Your task to perform on an android device: check google app version Image 0: 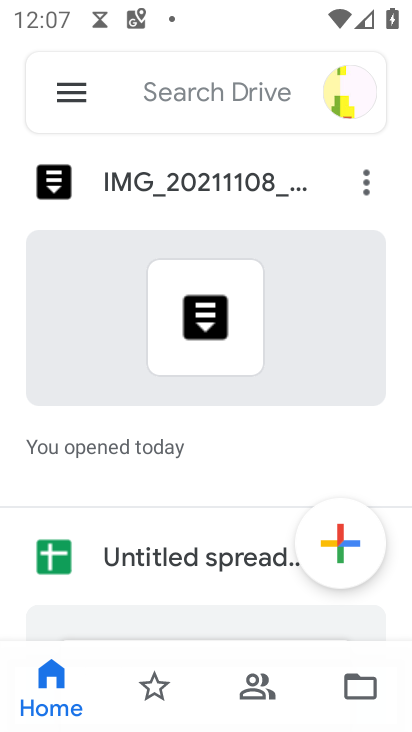
Step 0: press home button
Your task to perform on an android device: check google app version Image 1: 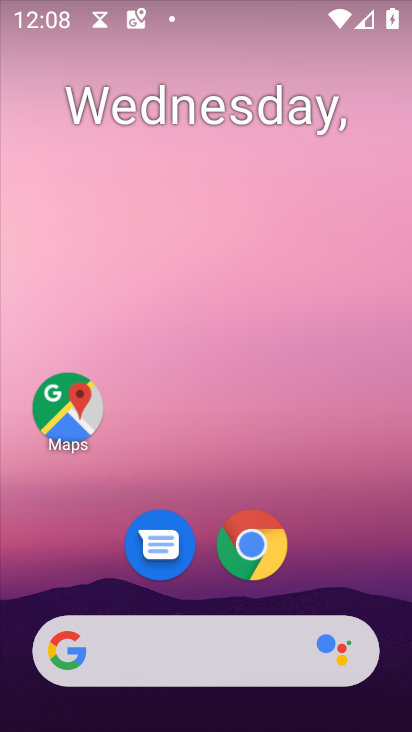
Step 1: drag from (351, 196) to (355, 72)
Your task to perform on an android device: check google app version Image 2: 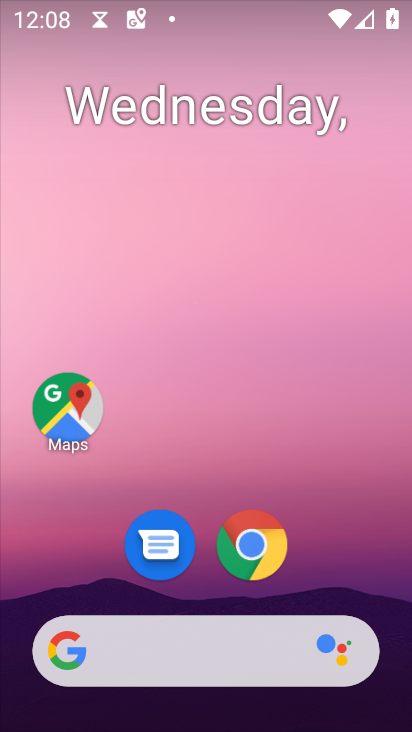
Step 2: drag from (377, 478) to (368, 15)
Your task to perform on an android device: check google app version Image 3: 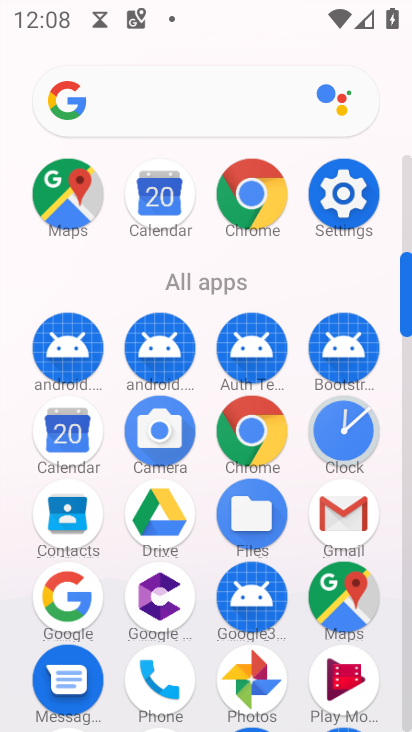
Step 3: click (53, 602)
Your task to perform on an android device: check google app version Image 4: 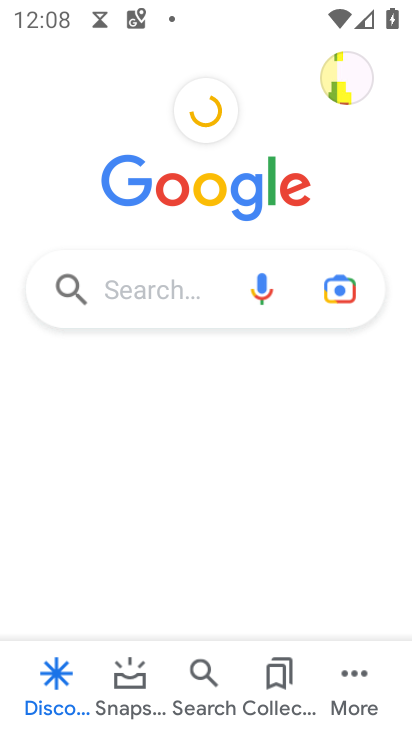
Step 4: click (349, 685)
Your task to perform on an android device: check google app version Image 5: 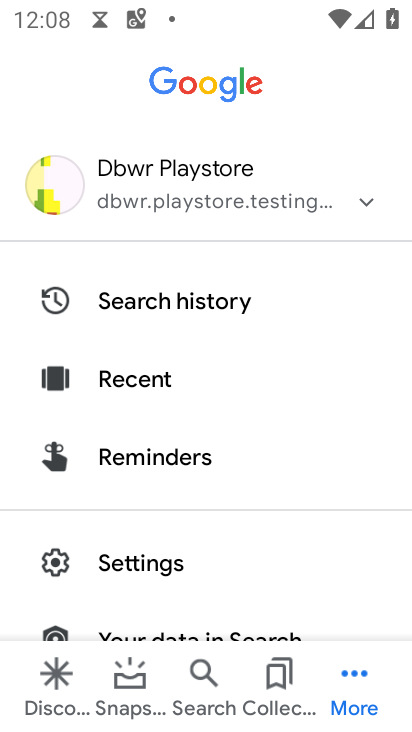
Step 5: drag from (242, 495) to (262, 131)
Your task to perform on an android device: check google app version Image 6: 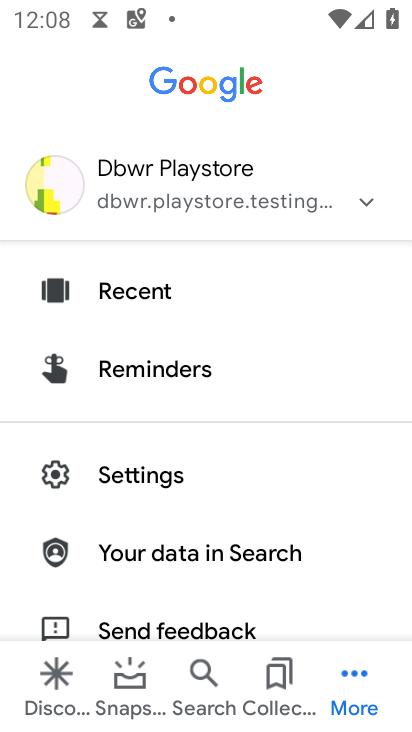
Step 6: drag from (228, 527) to (250, 192)
Your task to perform on an android device: check google app version Image 7: 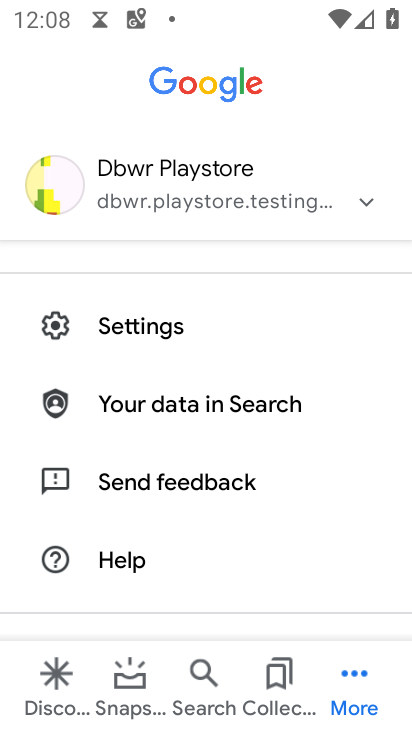
Step 7: drag from (191, 621) to (266, 177)
Your task to perform on an android device: check google app version Image 8: 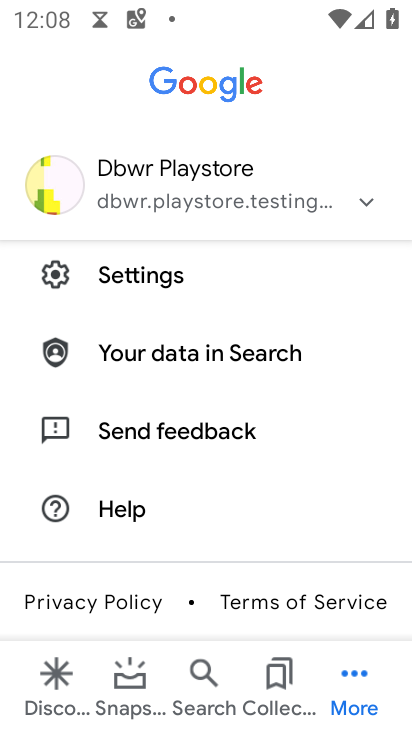
Step 8: drag from (210, 504) to (251, 218)
Your task to perform on an android device: check google app version Image 9: 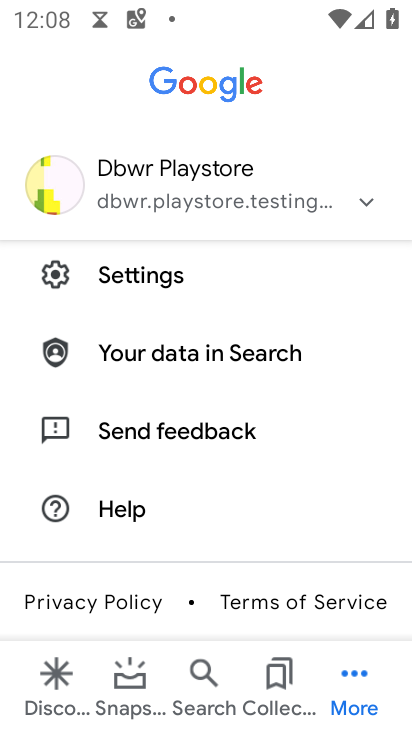
Step 9: drag from (252, 220) to (242, 630)
Your task to perform on an android device: check google app version Image 10: 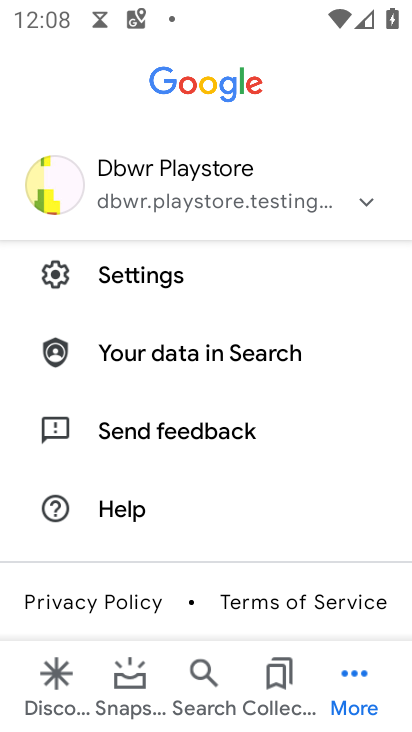
Step 10: click (133, 285)
Your task to perform on an android device: check google app version Image 11: 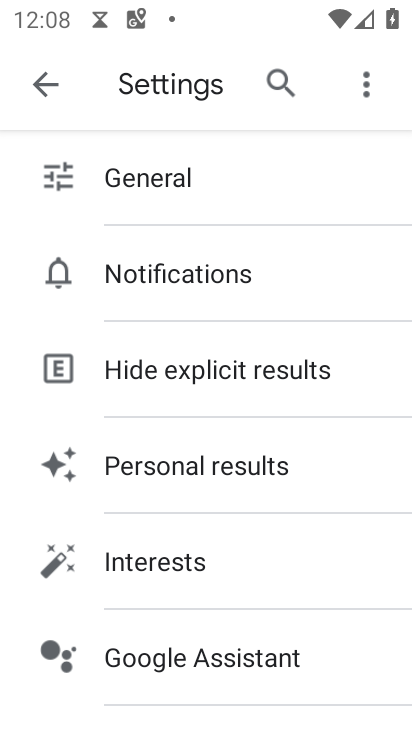
Step 11: drag from (247, 583) to (303, 204)
Your task to perform on an android device: check google app version Image 12: 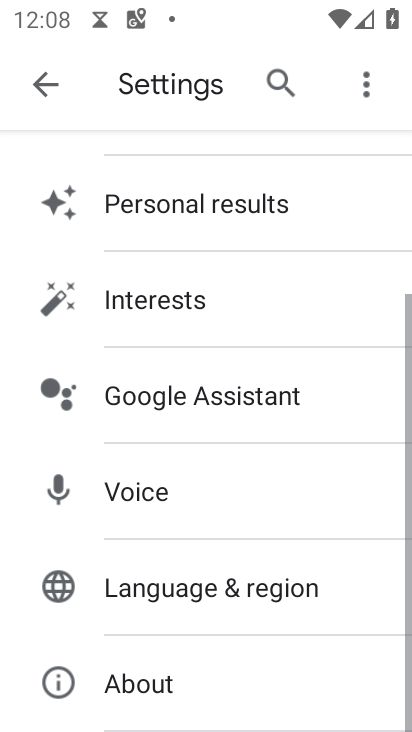
Step 12: drag from (263, 677) to (315, 294)
Your task to perform on an android device: check google app version Image 13: 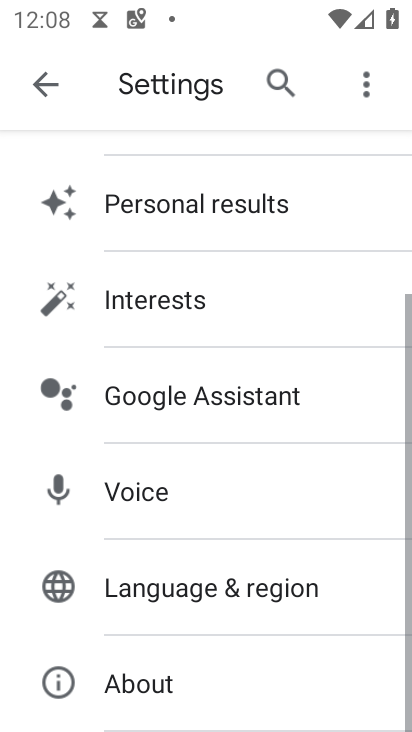
Step 13: click (184, 677)
Your task to perform on an android device: check google app version Image 14: 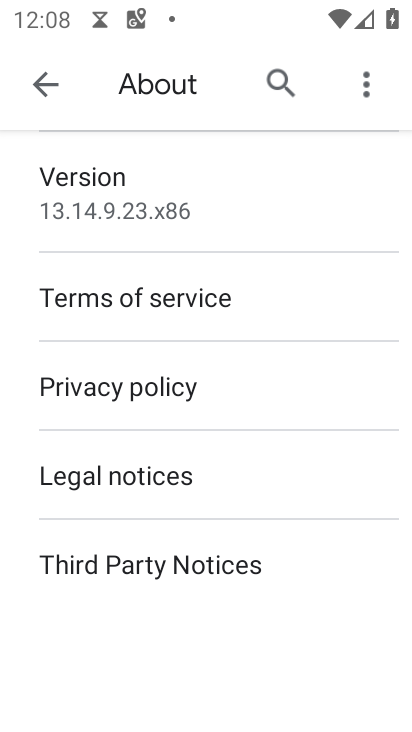
Step 14: click (105, 218)
Your task to perform on an android device: check google app version Image 15: 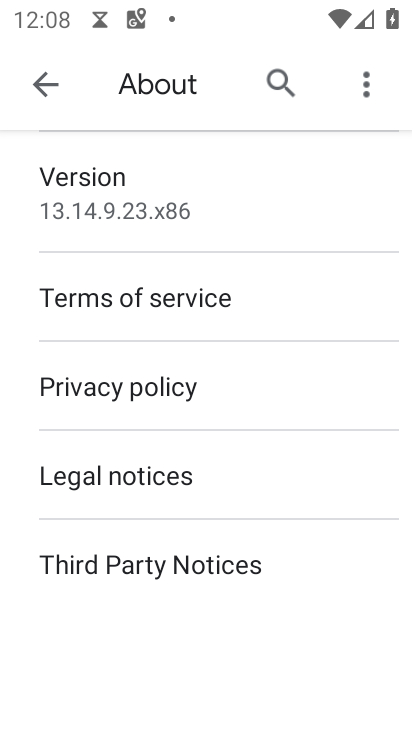
Step 15: task complete